Your task to perform on an android device: uninstall "Move to iOS" Image 0: 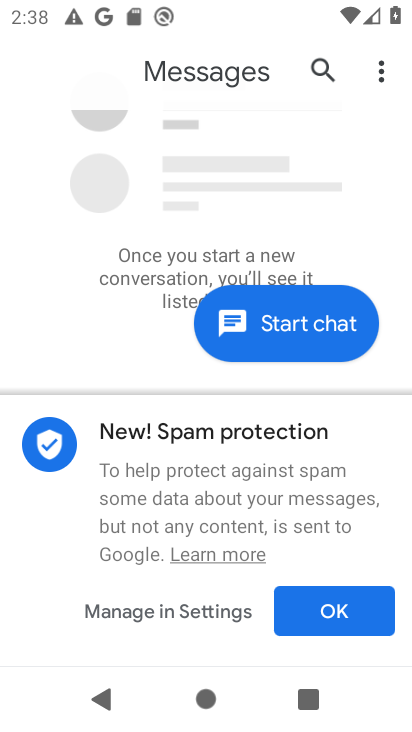
Step 0: task complete